Your task to perform on an android device: turn off location history Image 0: 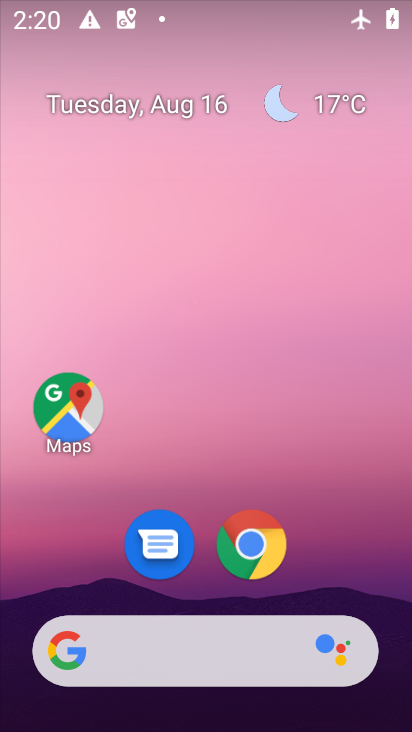
Step 0: drag from (181, 671) to (353, 102)
Your task to perform on an android device: turn off location history Image 1: 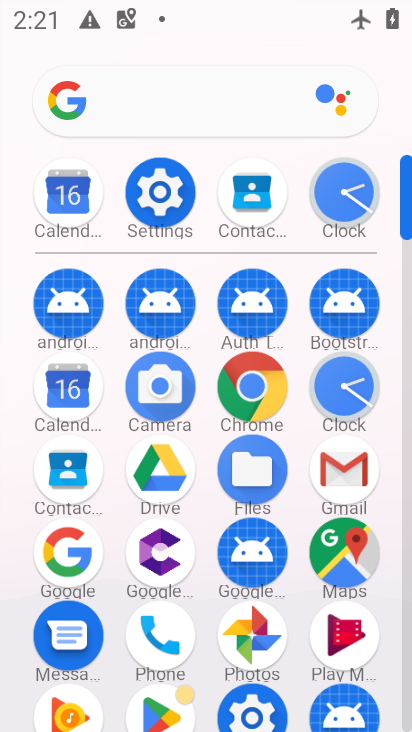
Step 1: click (159, 194)
Your task to perform on an android device: turn off location history Image 2: 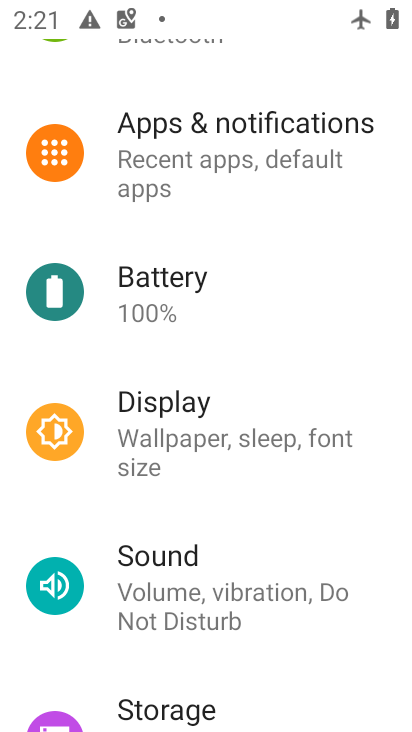
Step 2: drag from (191, 511) to (249, 421)
Your task to perform on an android device: turn off location history Image 3: 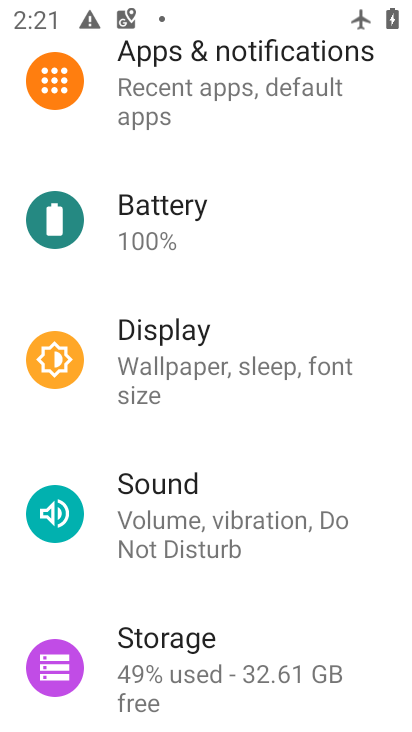
Step 3: drag from (180, 588) to (235, 470)
Your task to perform on an android device: turn off location history Image 4: 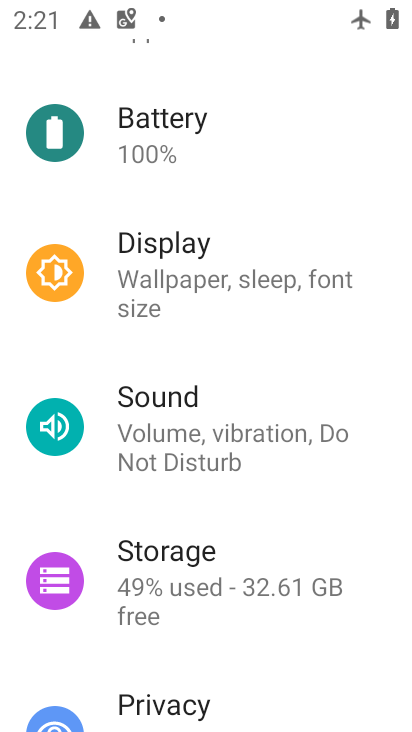
Step 4: drag from (162, 612) to (223, 477)
Your task to perform on an android device: turn off location history Image 5: 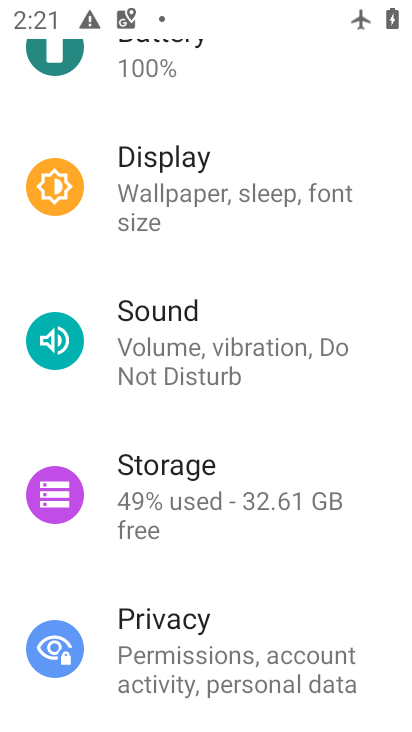
Step 5: drag from (181, 553) to (195, 450)
Your task to perform on an android device: turn off location history Image 6: 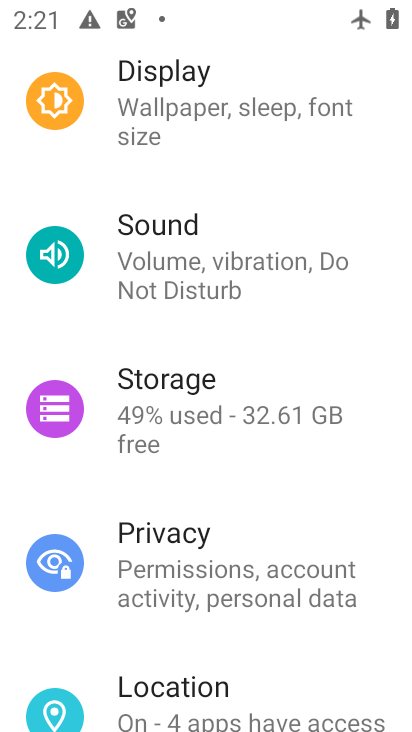
Step 6: drag from (172, 481) to (218, 365)
Your task to perform on an android device: turn off location history Image 7: 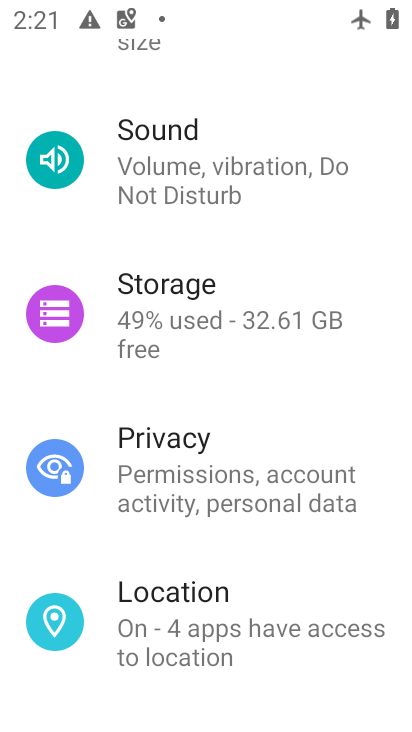
Step 7: drag from (160, 535) to (218, 428)
Your task to perform on an android device: turn off location history Image 8: 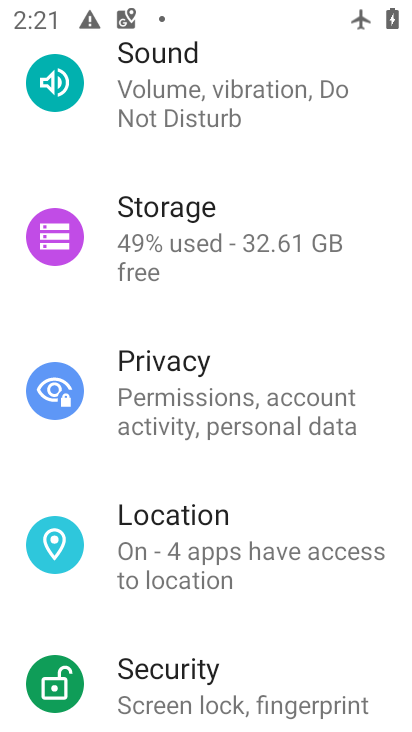
Step 8: drag from (133, 599) to (180, 486)
Your task to perform on an android device: turn off location history Image 9: 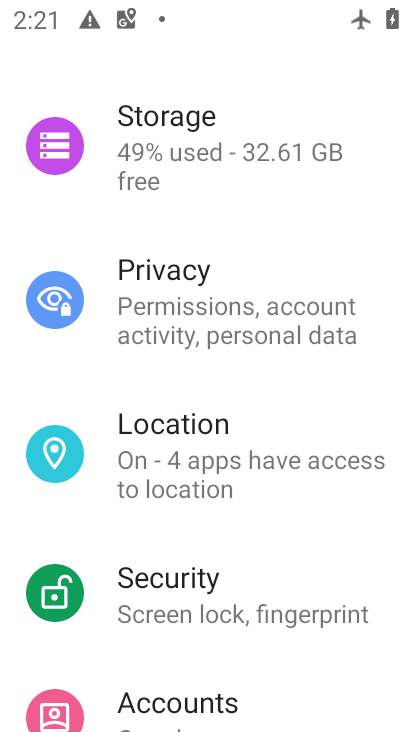
Step 9: click (186, 426)
Your task to perform on an android device: turn off location history Image 10: 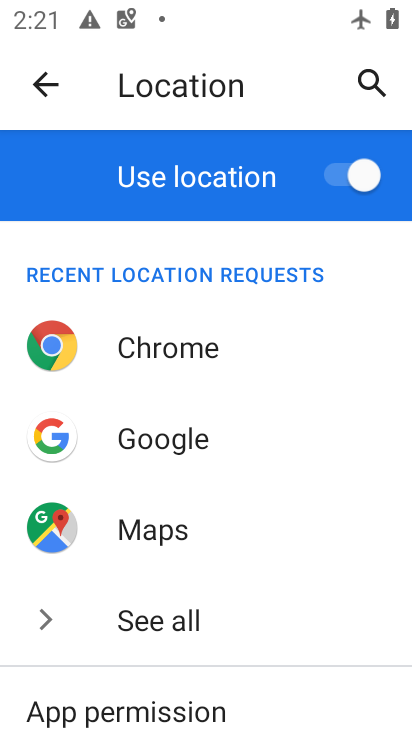
Step 10: drag from (186, 594) to (256, 474)
Your task to perform on an android device: turn off location history Image 11: 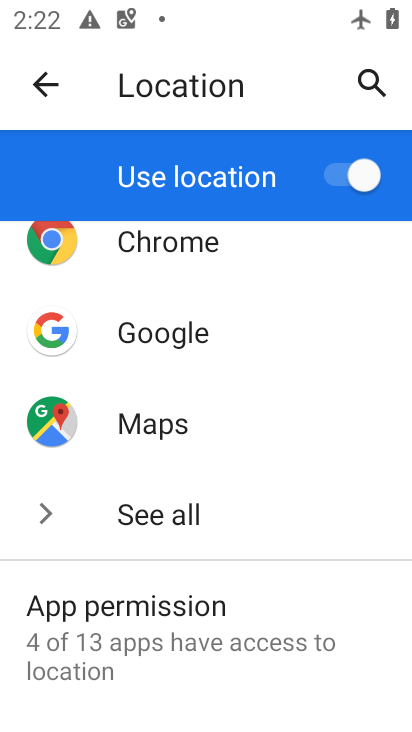
Step 11: drag from (207, 630) to (269, 443)
Your task to perform on an android device: turn off location history Image 12: 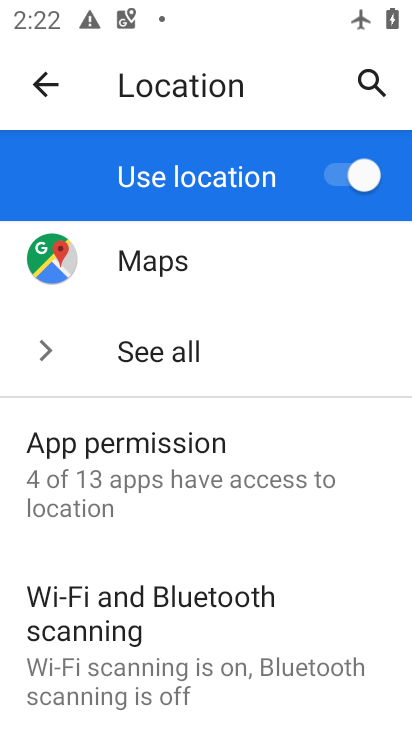
Step 12: drag from (247, 617) to (293, 462)
Your task to perform on an android device: turn off location history Image 13: 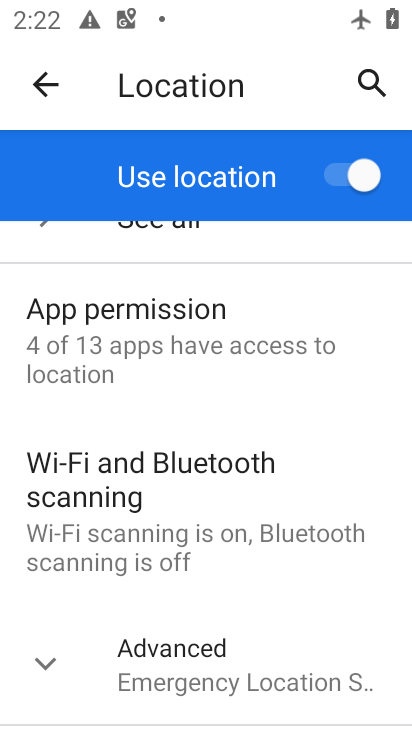
Step 13: click (226, 677)
Your task to perform on an android device: turn off location history Image 14: 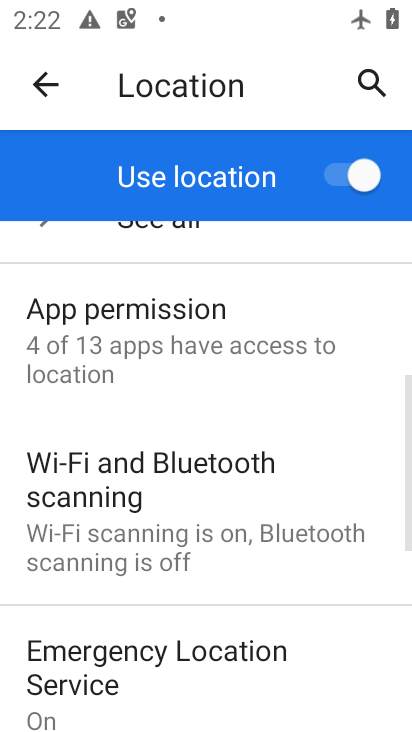
Step 14: drag from (226, 677) to (320, 529)
Your task to perform on an android device: turn off location history Image 15: 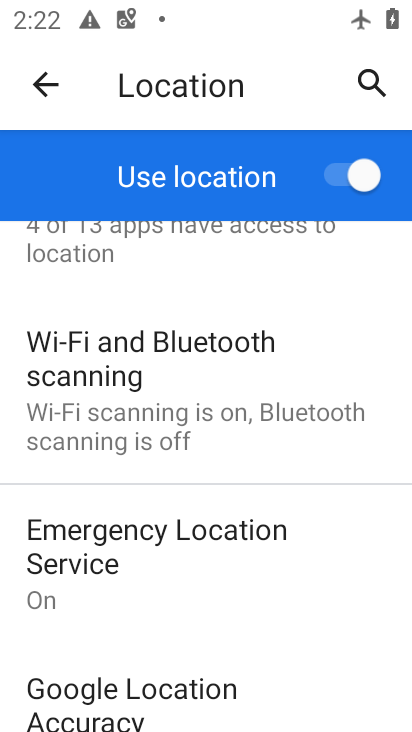
Step 15: drag from (182, 626) to (228, 519)
Your task to perform on an android device: turn off location history Image 16: 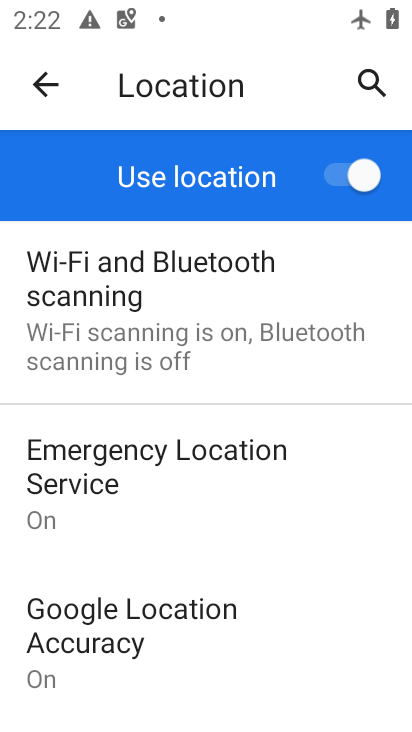
Step 16: drag from (201, 632) to (222, 509)
Your task to perform on an android device: turn off location history Image 17: 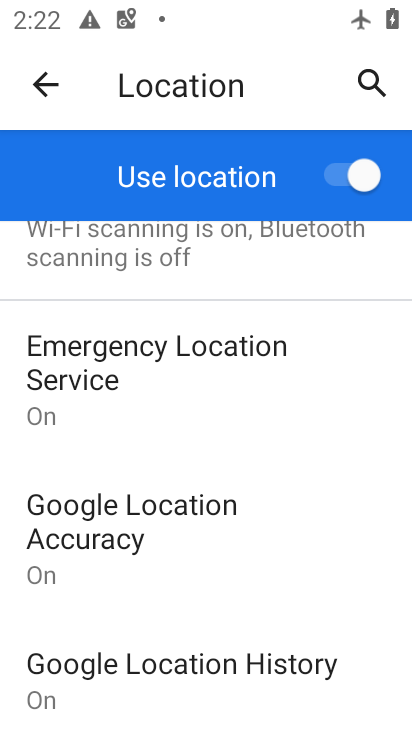
Step 17: drag from (191, 616) to (259, 488)
Your task to perform on an android device: turn off location history Image 18: 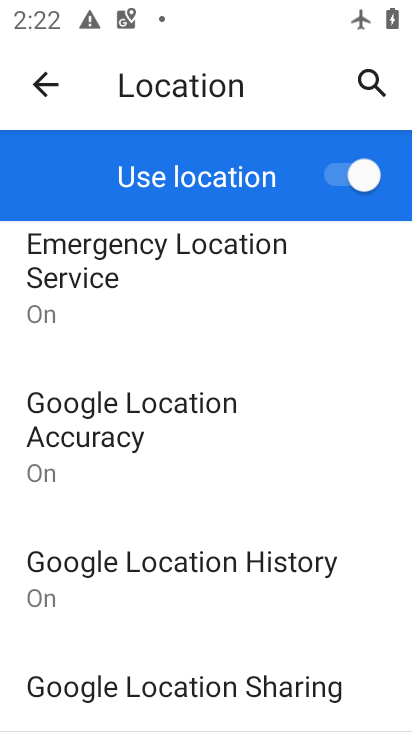
Step 18: click (260, 568)
Your task to perform on an android device: turn off location history Image 19: 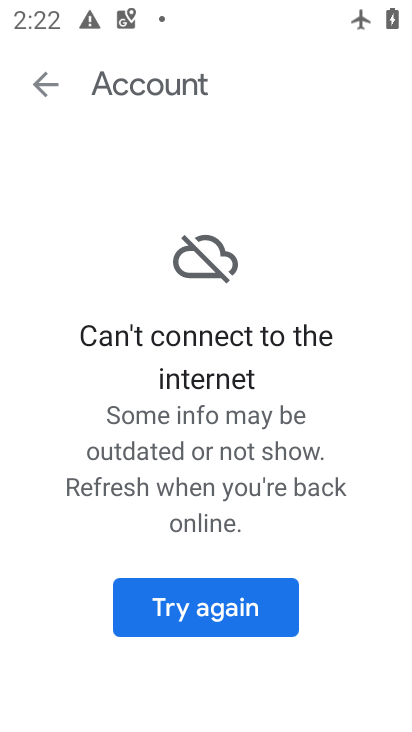
Step 19: click (193, 609)
Your task to perform on an android device: turn off location history Image 20: 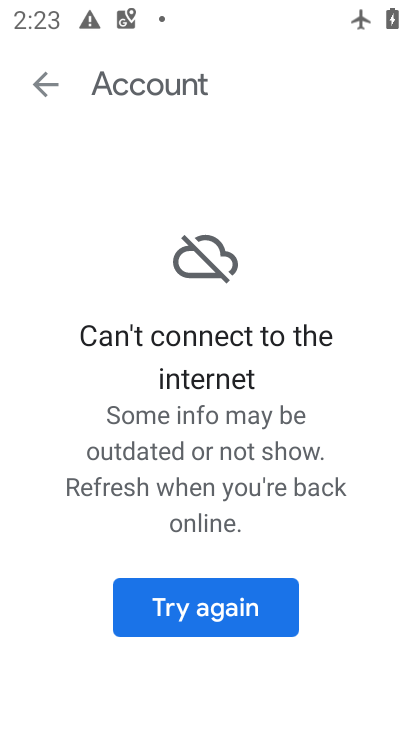
Step 20: task complete